Your task to perform on an android device: Open the Play Movies app and select the watchlist tab. Image 0: 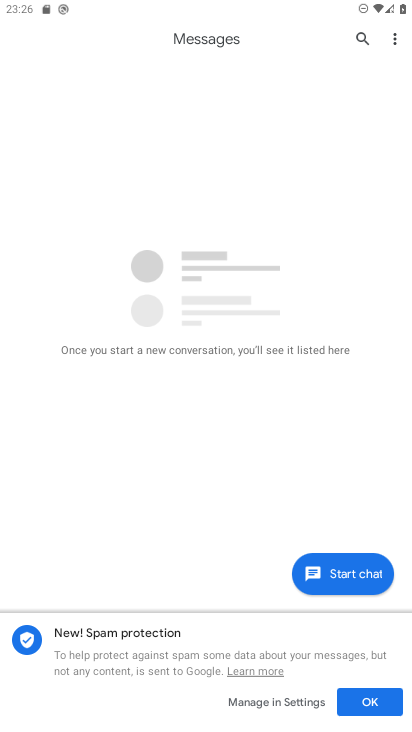
Step 0: press home button
Your task to perform on an android device: Open the Play Movies app and select the watchlist tab. Image 1: 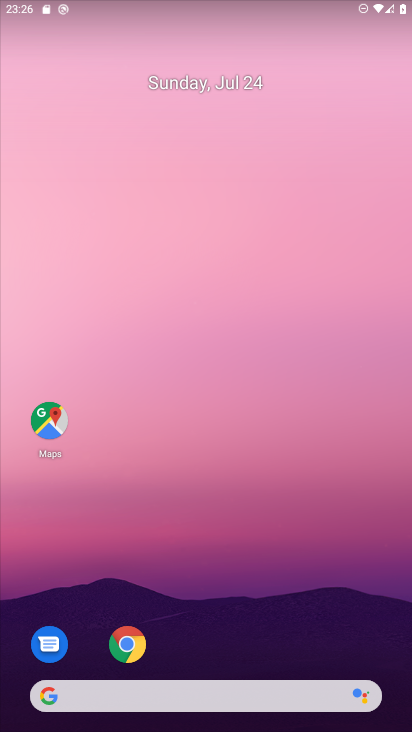
Step 1: drag from (367, 644) to (337, 80)
Your task to perform on an android device: Open the Play Movies app and select the watchlist tab. Image 2: 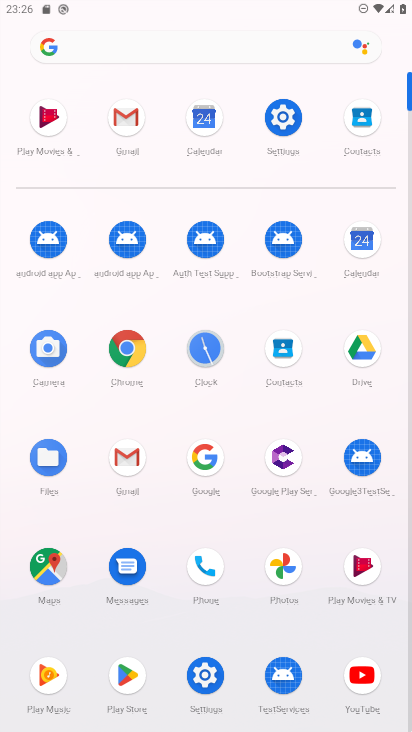
Step 2: click (359, 557)
Your task to perform on an android device: Open the Play Movies app and select the watchlist tab. Image 3: 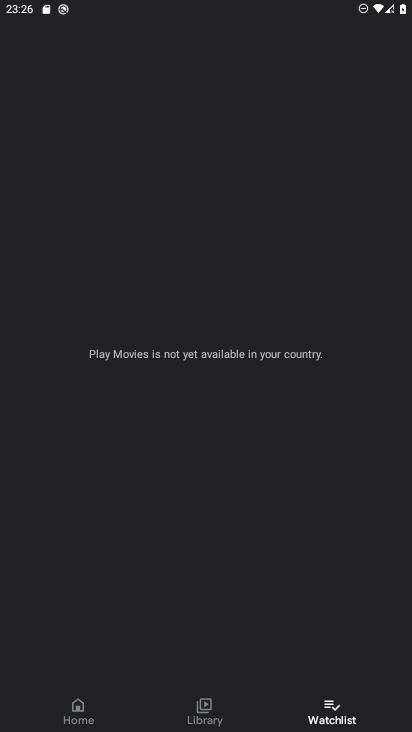
Step 3: task complete